Your task to perform on an android device: Go to Yahoo.com Image 0: 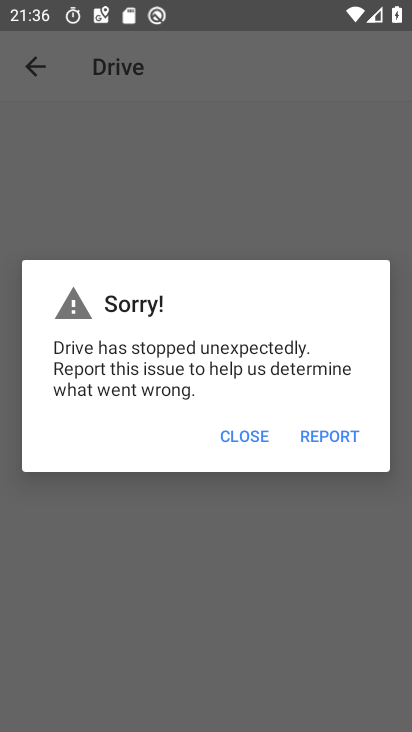
Step 0: press home button
Your task to perform on an android device: Go to Yahoo.com Image 1: 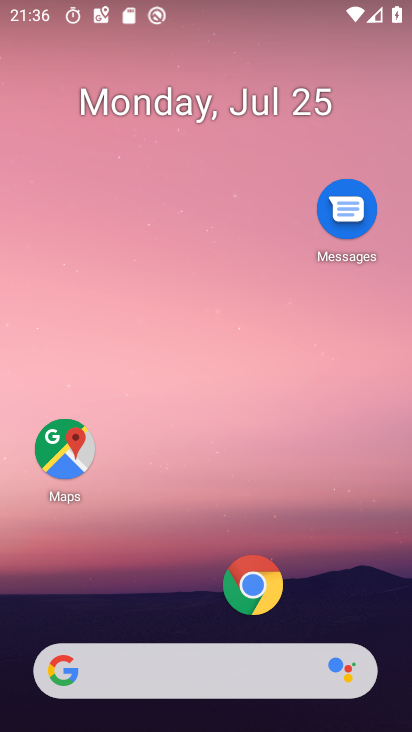
Step 1: click (262, 596)
Your task to perform on an android device: Go to Yahoo.com Image 2: 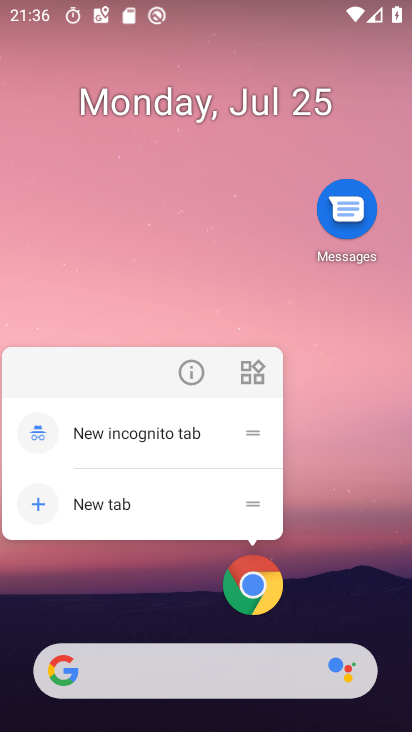
Step 2: click (257, 594)
Your task to perform on an android device: Go to Yahoo.com Image 3: 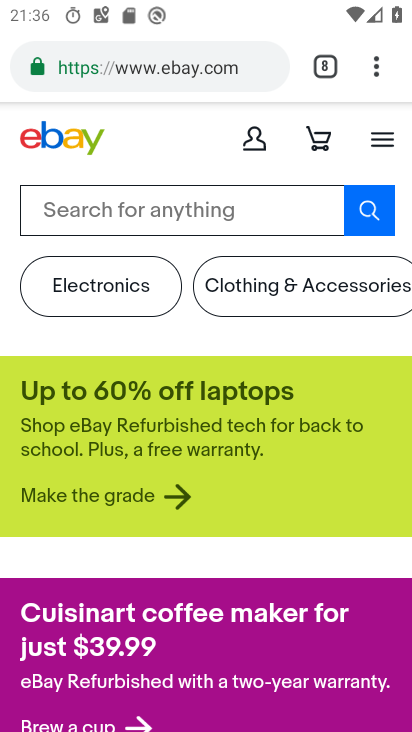
Step 3: drag from (376, 65) to (213, 127)
Your task to perform on an android device: Go to Yahoo.com Image 4: 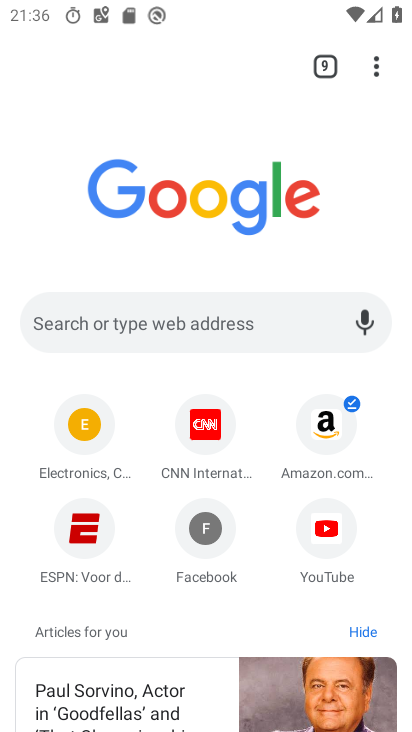
Step 4: click (181, 314)
Your task to perform on an android device: Go to Yahoo.com Image 5: 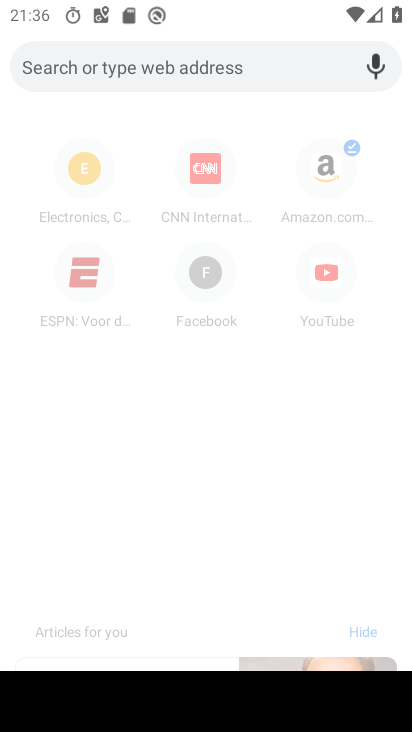
Step 5: type "yahoo.com"
Your task to perform on an android device: Go to Yahoo.com Image 6: 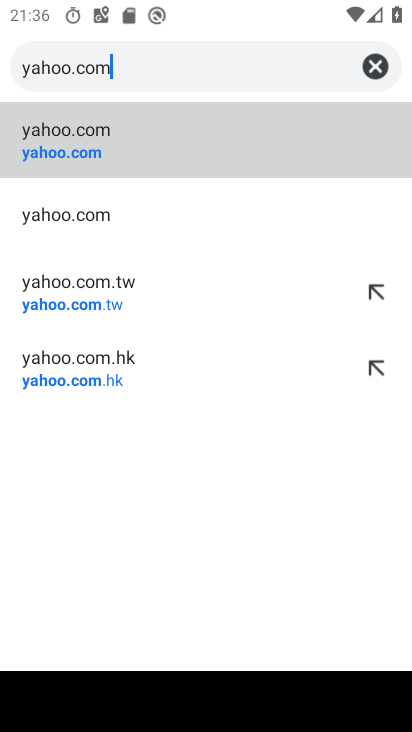
Step 6: click (133, 147)
Your task to perform on an android device: Go to Yahoo.com Image 7: 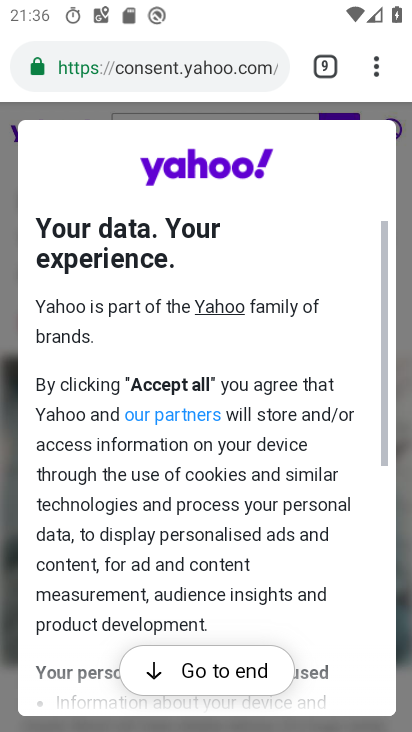
Step 7: click (227, 669)
Your task to perform on an android device: Go to Yahoo.com Image 8: 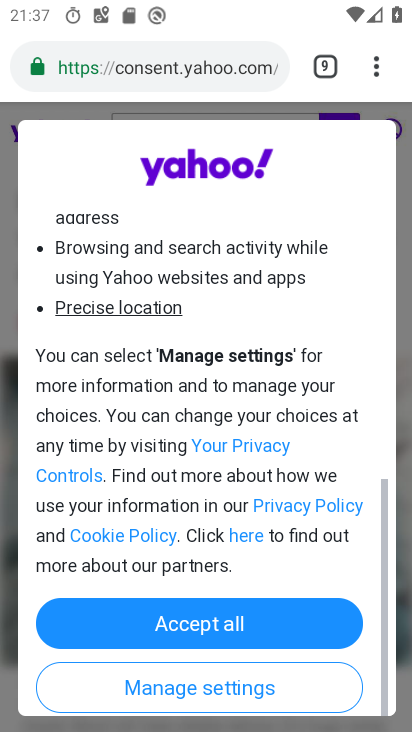
Step 8: click (230, 629)
Your task to perform on an android device: Go to Yahoo.com Image 9: 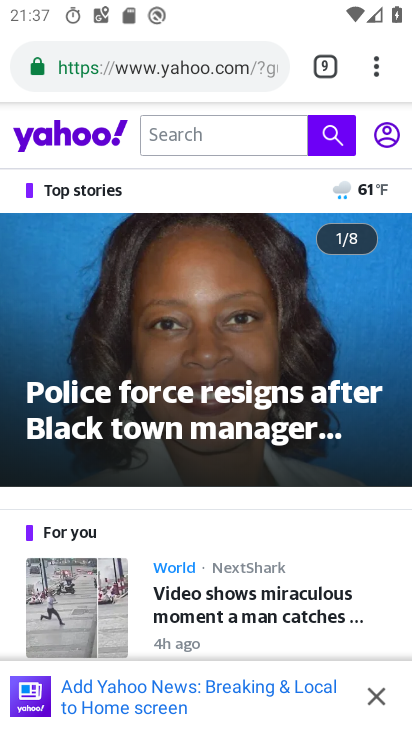
Step 9: task complete